Your task to perform on an android device: Go to Google Image 0: 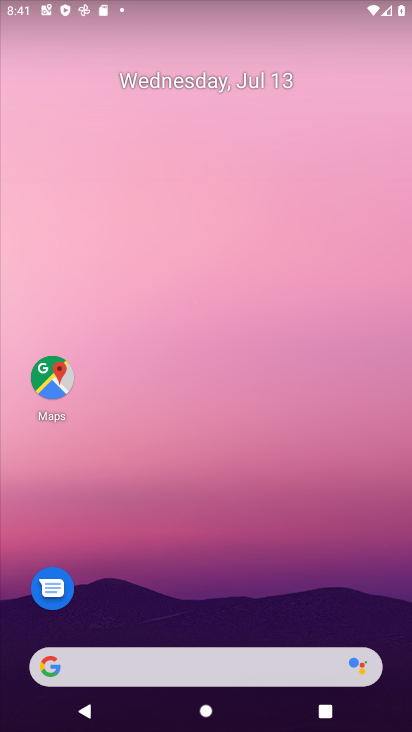
Step 0: drag from (230, 652) to (236, 67)
Your task to perform on an android device: Go to Google Image 1: 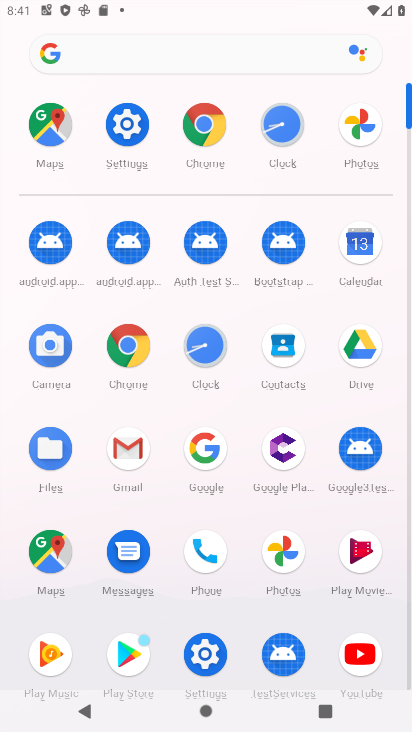
Step 1: click (211, 458)
Your task to perform on an android device: Go to Google Image 2: 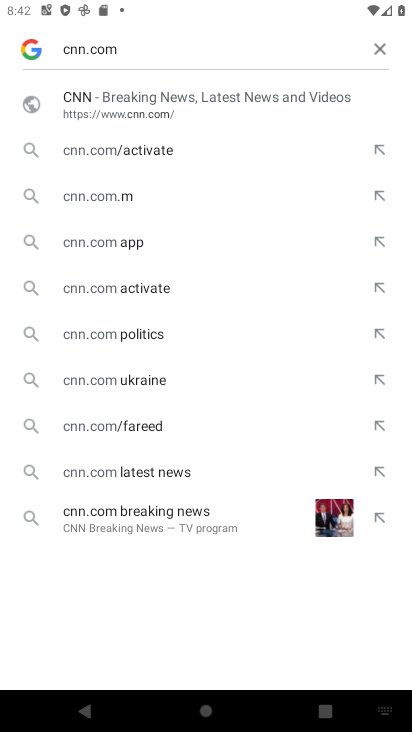
Step 2: task complete